Your task to perform on an android device: move an email to a new category in the gmail app Image 0: 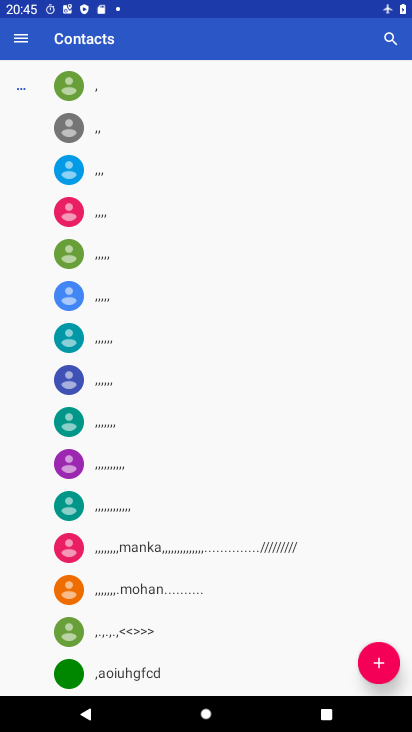
Step 0: press home button
Your task to perform on an android device: move an email to a new category in the gmail app Image 1: 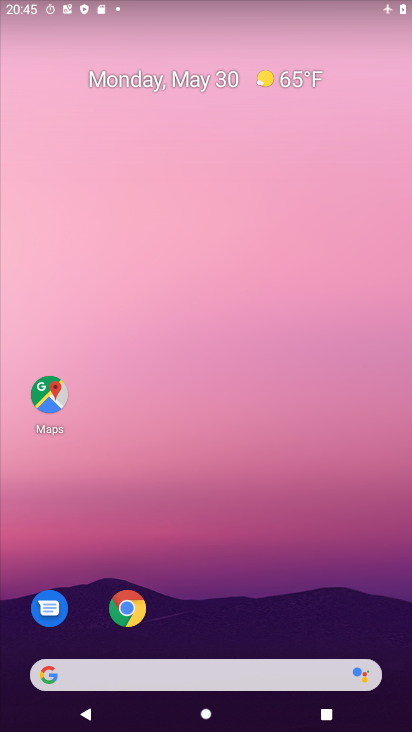
Step 1: drag from (203, 618) to (192, 168)
Your task to perform on an android device: move an email to a new category in the gmail app Image 2: 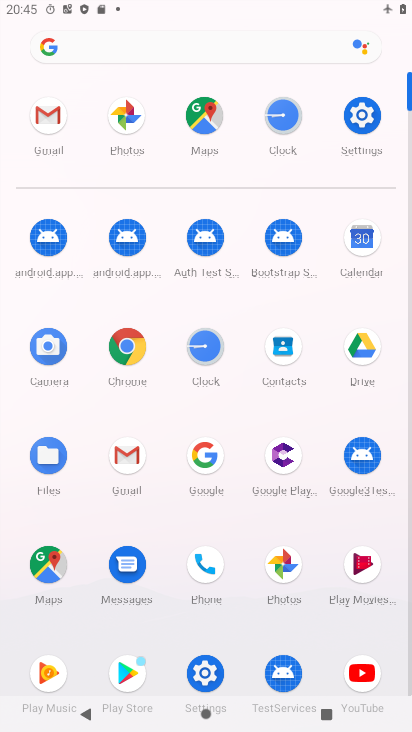
Step 2: click (56, 126)
Your task to perform on an android device: move an email to a new category in the gmail app Image 3: 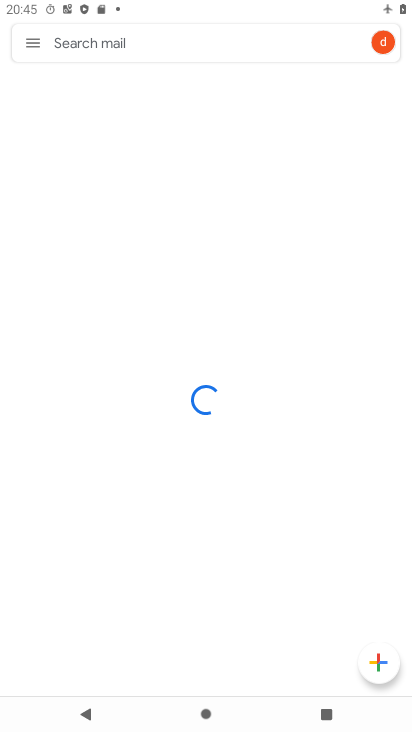
Step 3: click (23, 32)
Your task to perform on an android device: move an email to a new category in the gmail app Image 4: 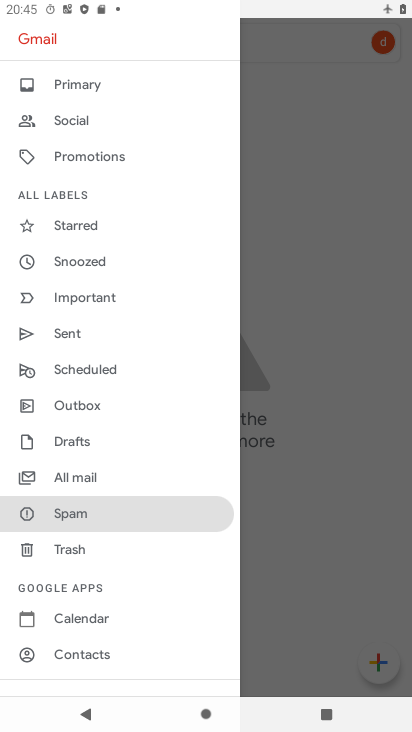
Step 4: click (81, 476)
Your task to perform on an android device: move an email to a new category in the gmail app Image 5: 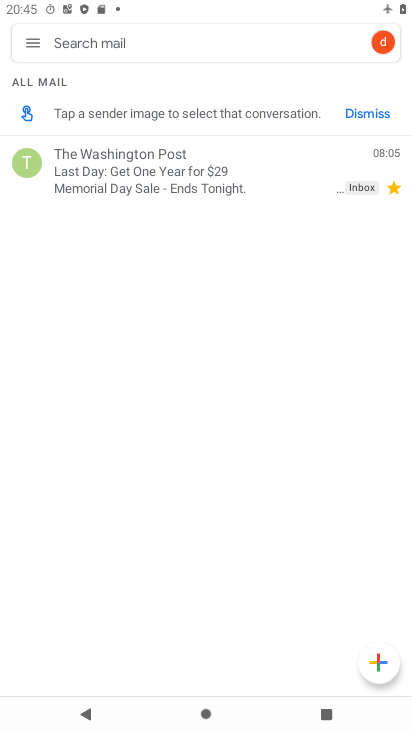
Step 5: click (155, 176)
Your task to perform on an android device: move an email to a new category in the gmail app Image 6: 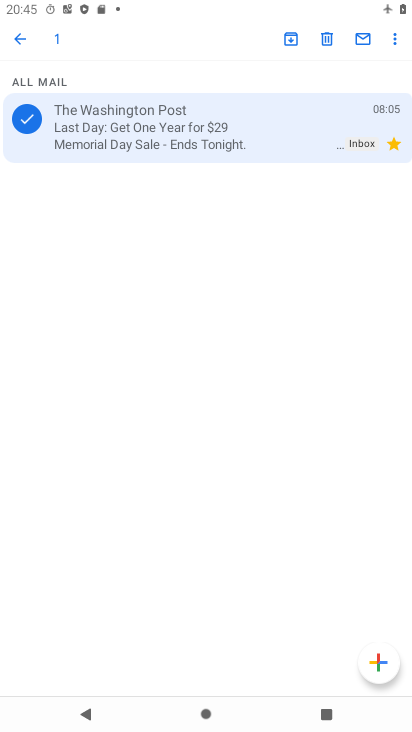
Step 6: click (387, 33)
Your task to perform on an android device: move an email to a new category in the gmail app Image 7: 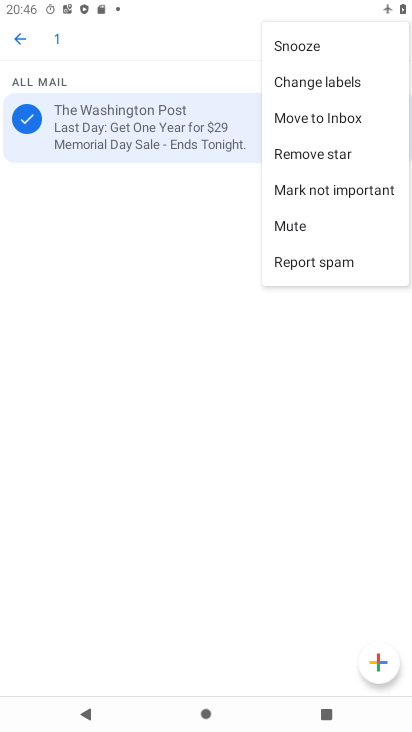
Step 7: click (316, 127)
Your task to perform on an android device: move an email to a new category in the gmail app Image 8: 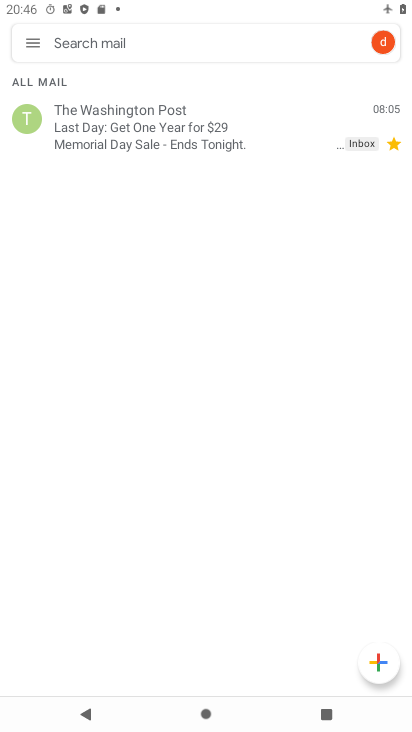
Step 8: task complete